Your task to perform on an android device: Open Reddit.com Image 0: 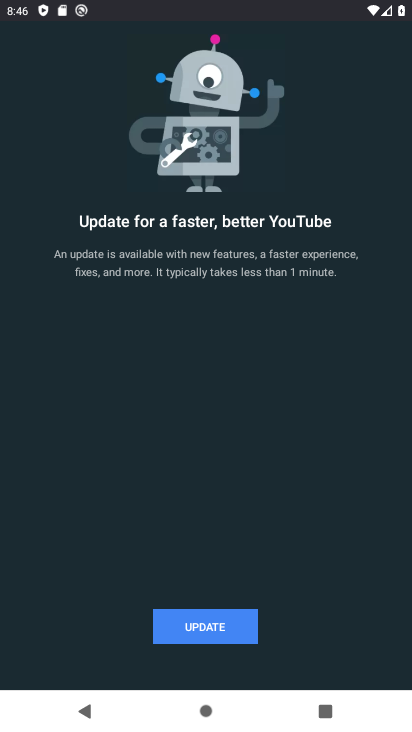
Step 0: press home button
Your task to perform on an android device: Open Reddit.com Image 1: 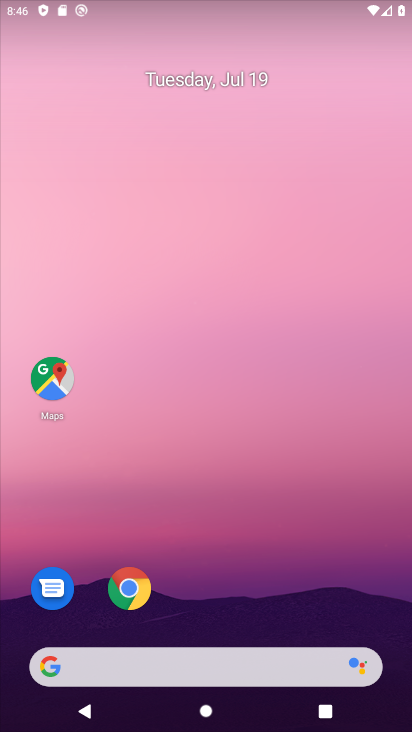
Step 1: drag from (233, 380) to (244, 53)
Your task to perform on an android device: Open Reddit.com Image 2: 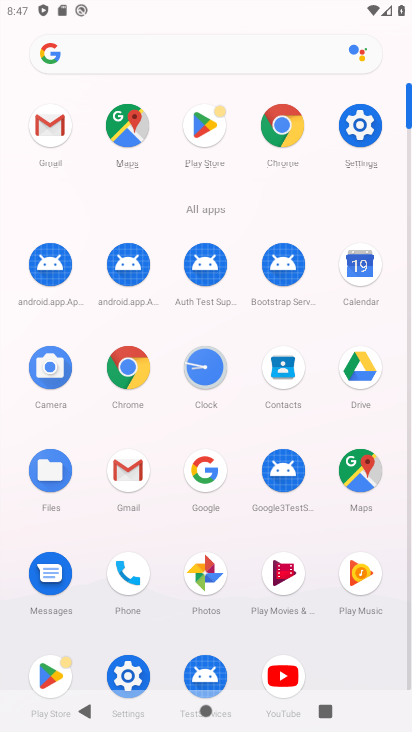
Step 2: click (287, 123)
Your task to perform on an android device: Open Reddit.com Image 3: 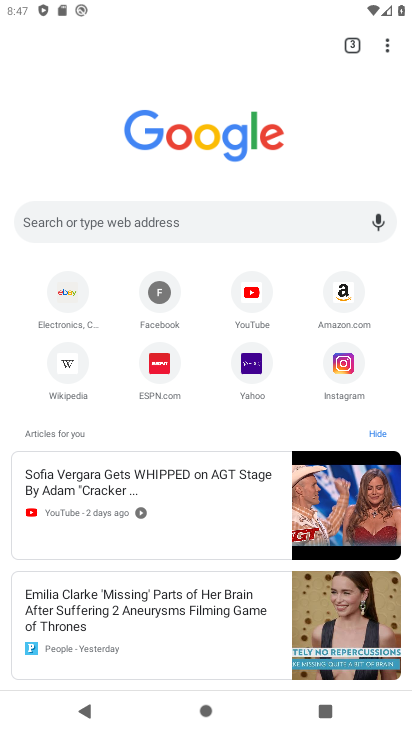
Step 3: click (165, 206)
Your task to perform on an android device: Open Reddit.com Image 4: 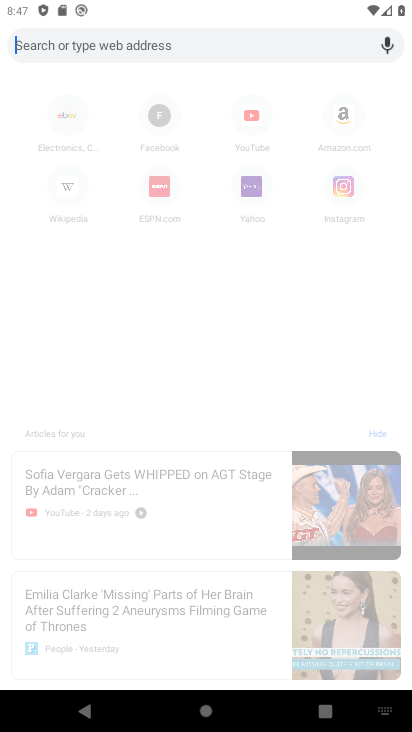
Step 4: type " Reddit.com"
Your task to perform on an android device: Open Reddit.com Image 5: 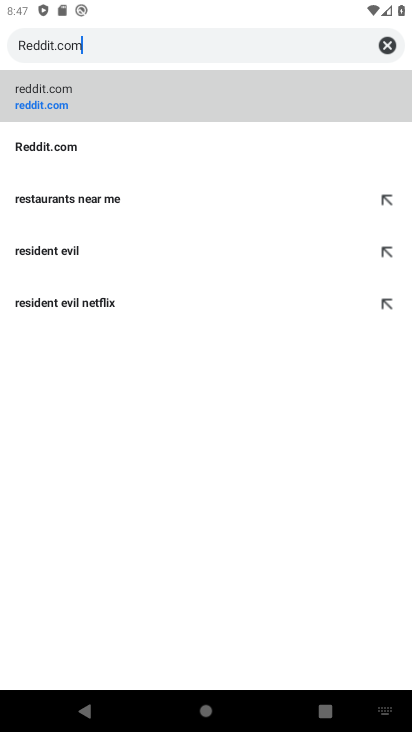
Step 5: press enter
Your task to perform on an android device: Open Reddit.com Image 6: 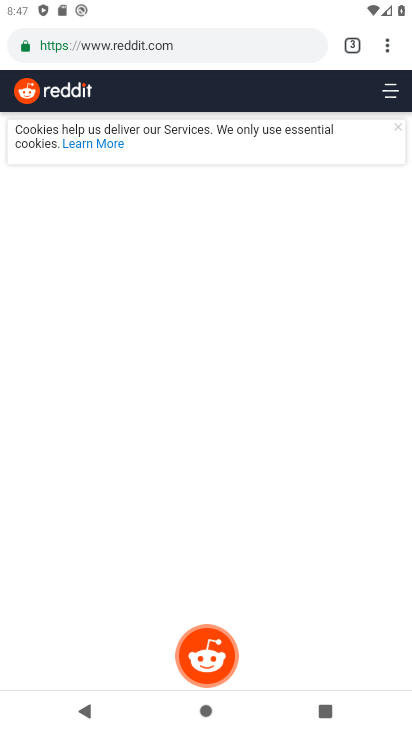
Step 6: task complete